Your task to perform on an android device: turn off improve location accuracy Image 0: 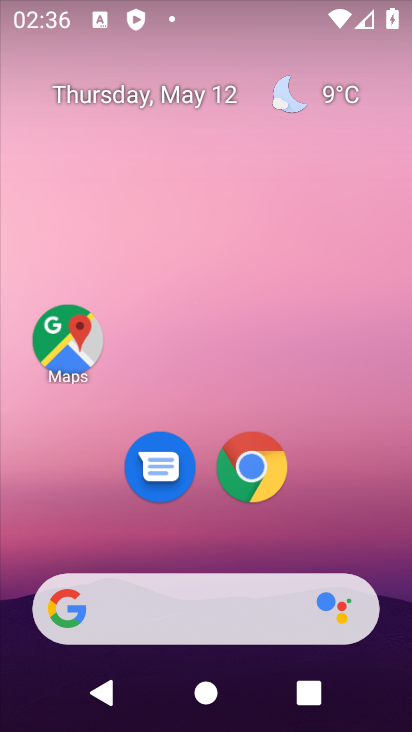
Step 0: drag from (316, 520) to (305, 251)
Your task to perform on an android device: turn off improve location accuracy Image 1: 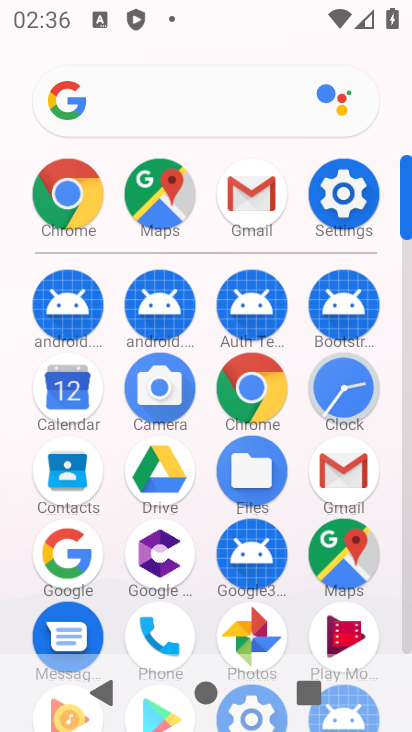
Step 1: click (345, 192)
Your task to perform on an android device: turn off improve location accuracy Image 2: 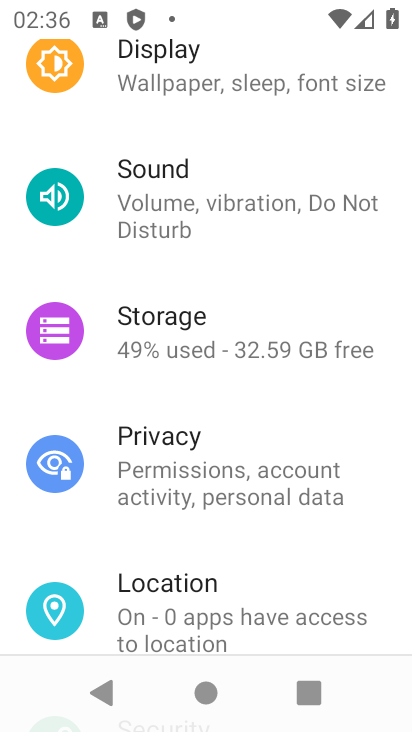
Step 2: click (213, 615)
Your task to perform on an android device: turn off improve location accuracy Image 3: 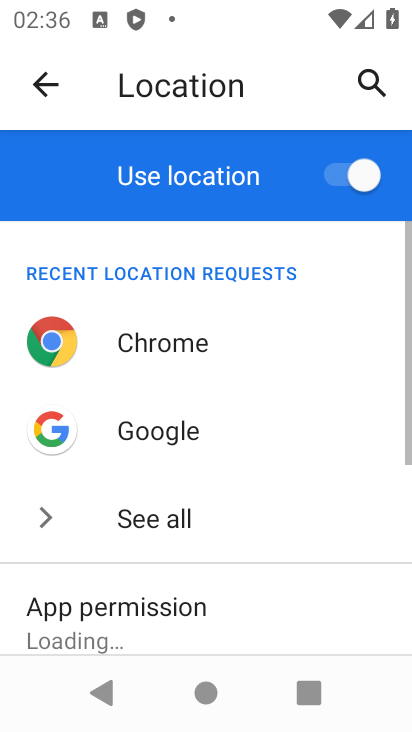
Step 3: drag from (240, 575) to (227, 201)
Your task to perform on an android device: turn off improve location accuracy Image 4: 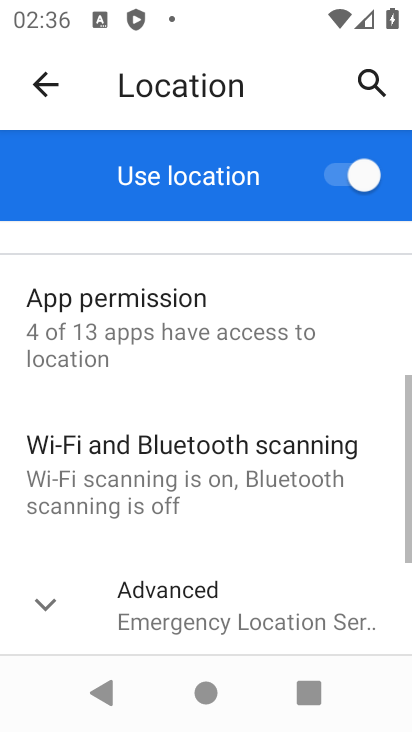
Step 4: click (154, 598)
Your task to perform on an android device: turn off improve location accuracy Image 5: 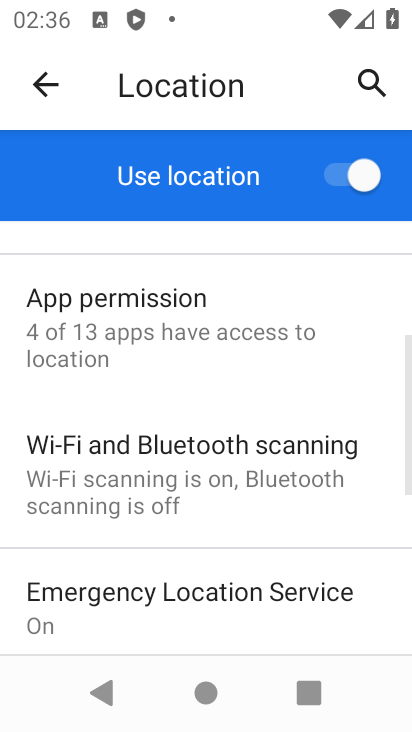
Step 5: drag from (227, 588) to (279, 239)
Your task to perform on an android device: turn off improve location accuracy Image 6: 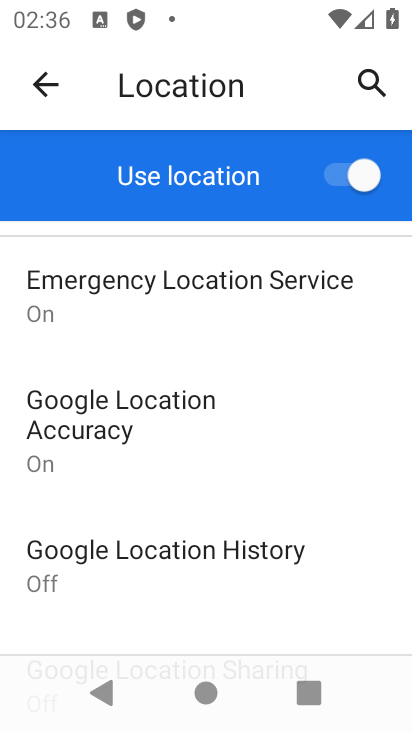
Step 6: click (164, 419)
Your task to perform on an android device: turn off improve location accuracy Image 7: 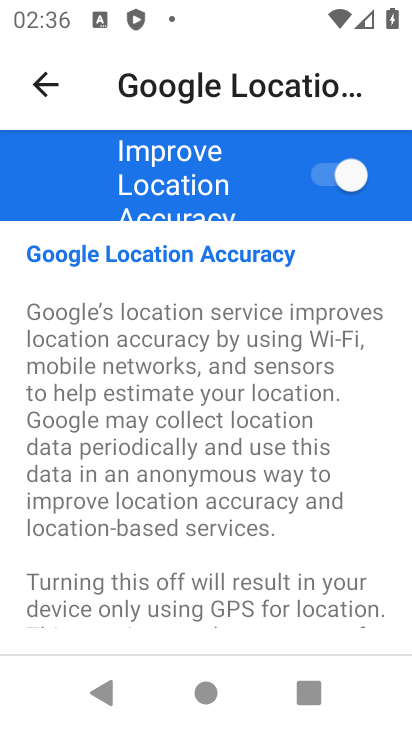
Step 7: click (316, 175)
Your task to perform on an android device: turn off improve location accuracy Image 8: 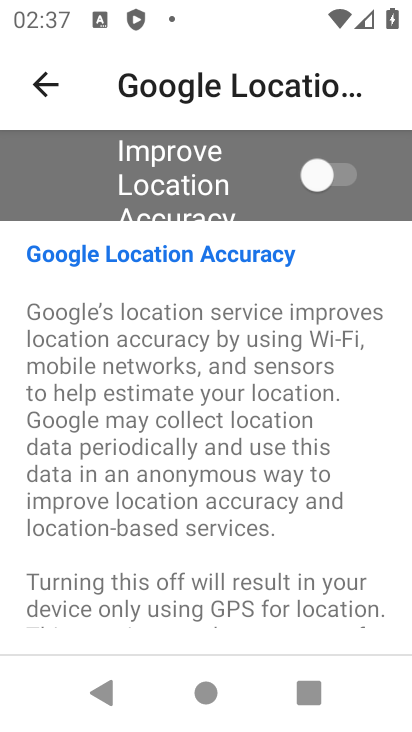
Step 8: task complete